Your task to perform on an android device: open chrome privacy settings Image 0: 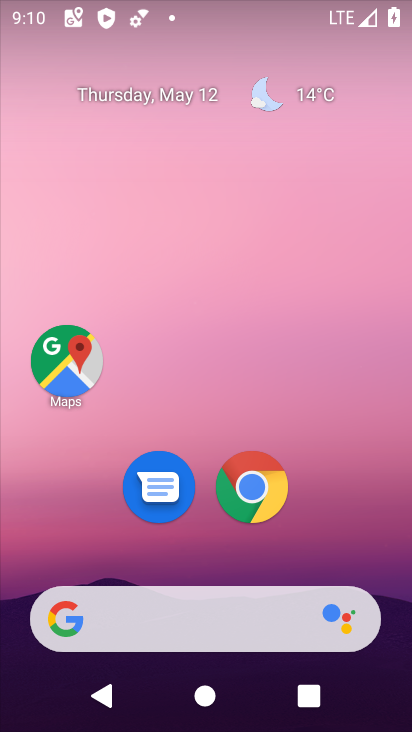
Step 0: click (246, 496)
Your task to perform on an android device: open chrome privacy settings Image 1: 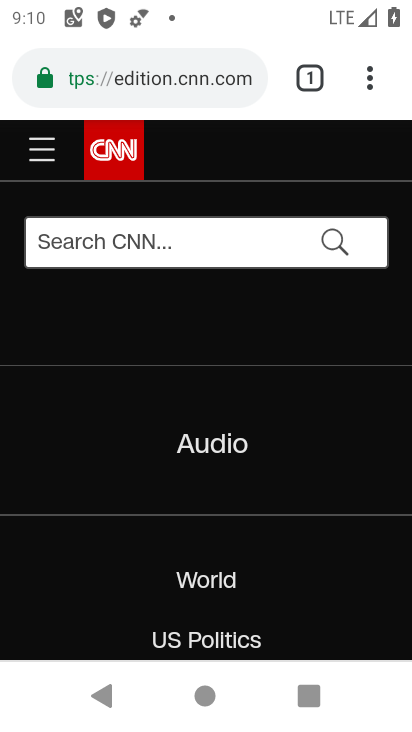
Step 1: click (369, 91)
Your task to perform on an android device: open chrome privacy settings Image 2: 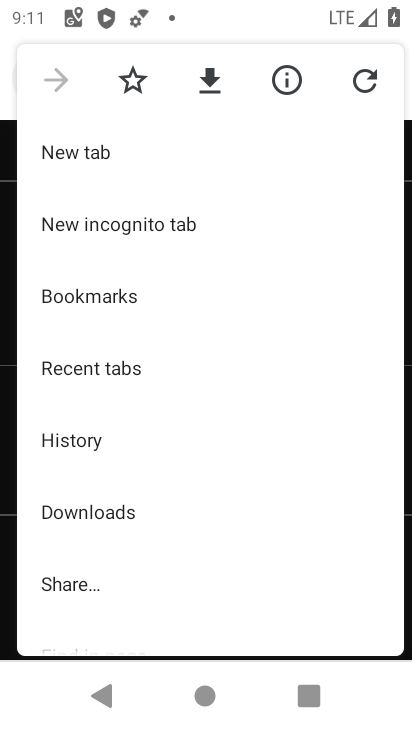
Step 2: drag from (60, 568) to (247, 101)
Your task to perform on an android device: open chrome privacy settings Image 3: 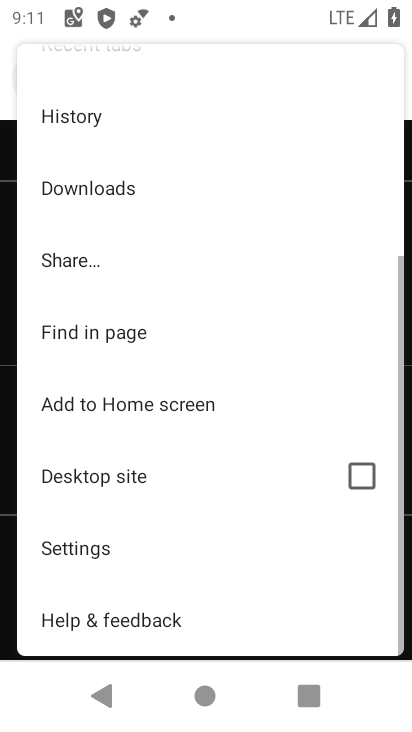
Step 3: click (92, 551)
Your task to perform on an android device: open chrome privacy settings Image 4: 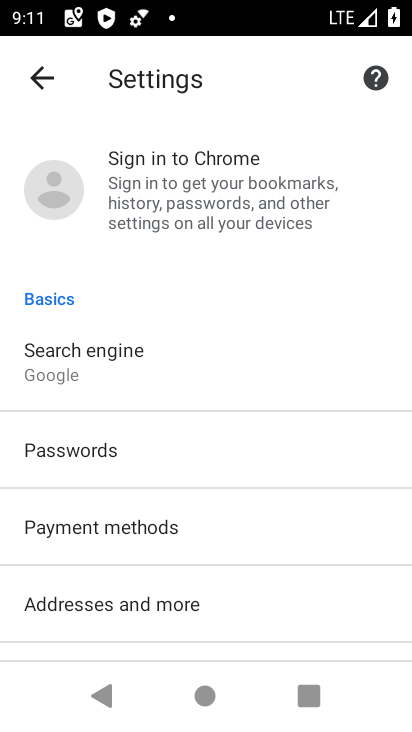
Step 4: drag from (39, 598) to (246, 145)
Your task to perform on an android device: open chrome privacy settings Image 5: 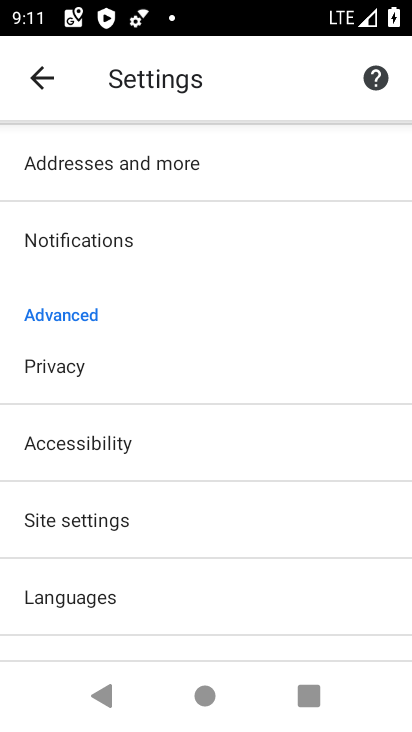
Step 5: click (116, 357)
Your task to perform on an android device: open chrome privacy settings Image 6: 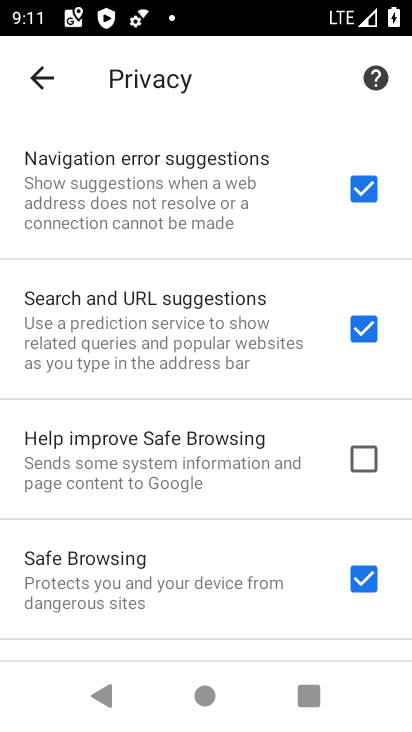
Step 6: task complete